Your task to perform on an android device: turn on bluetooth scan Image 0: 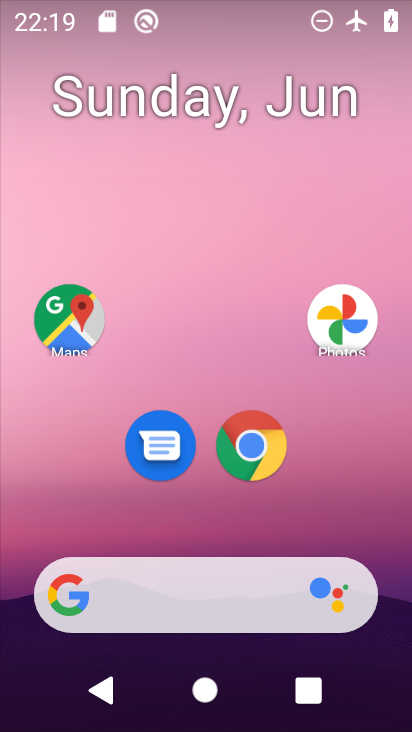
Step 0: press home button
Your task to perform on an android device: turn on bluetooth scan Image 1: 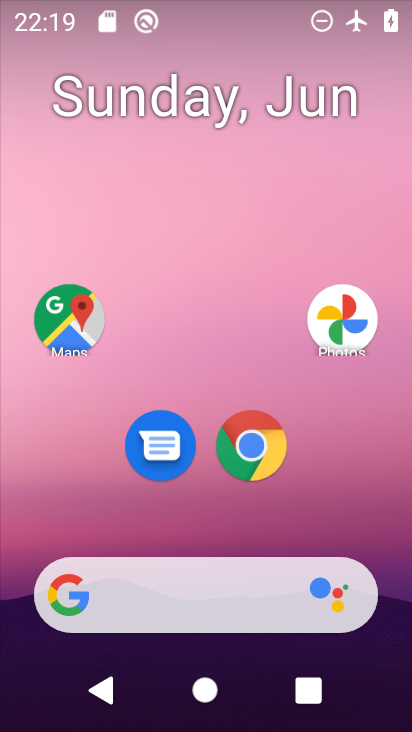
Step 1: drag from (217, 522) to (240, 13)
Your task to perform on an android device: turn on bluetooth scan Image 2: 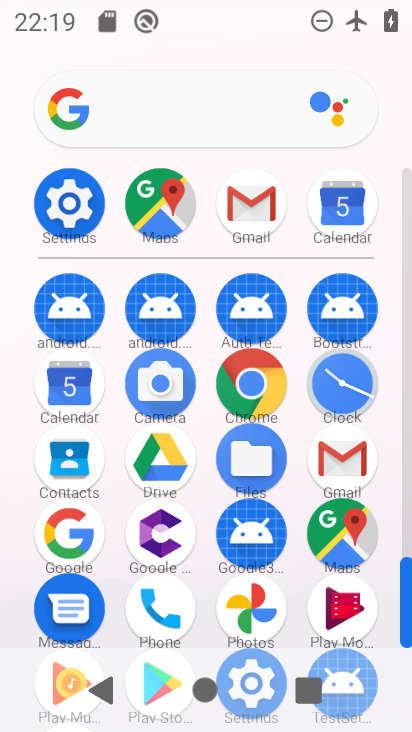
Step 2: click (85, 206)
Your task to perform on an android device: turn on bluetooth scan Image 3: 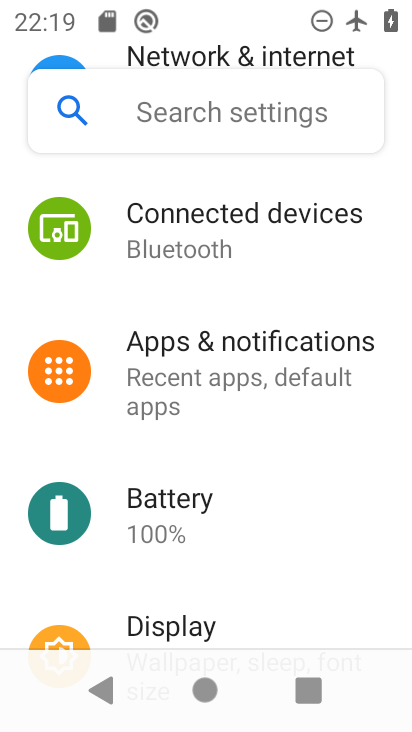
Step 3: drag from (337, 563) to (353, 172)
Your task to perform on an android device: turn on bluetooth scan Image 4: 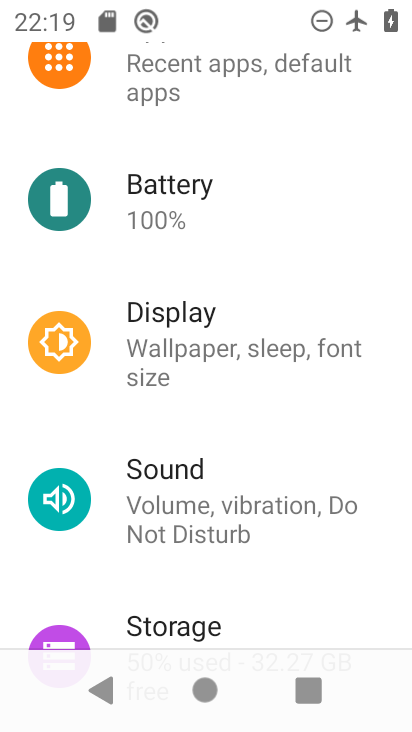
Step 4: drag from (338, 567) to (322, 144)
Your task to perform on an android device: turn on bluetooth scan Image 5: 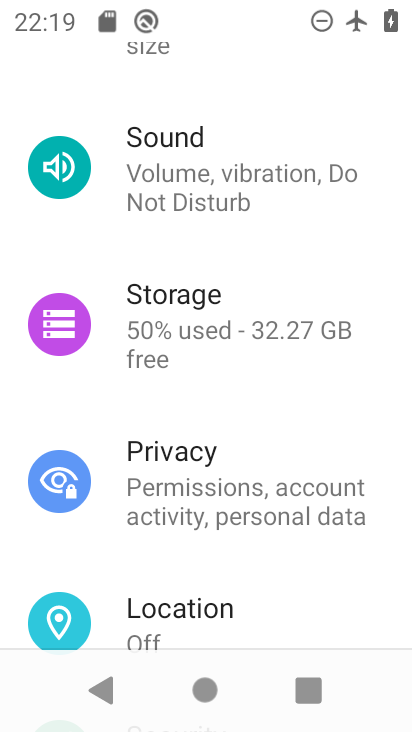
Step 5: click (193, 619)
Your task to perform on an android device: turn on bluetooth scan Image 6: 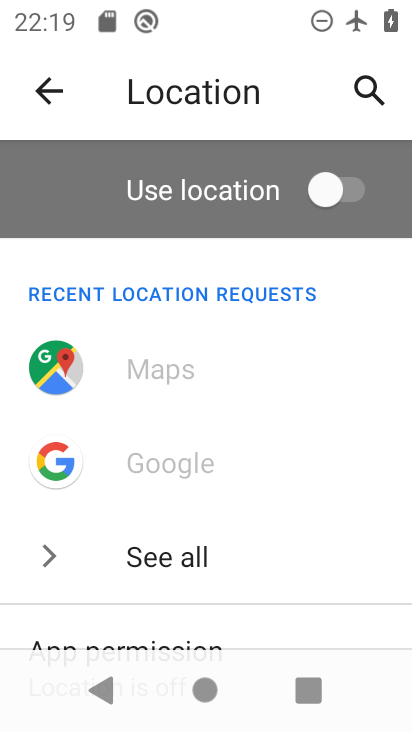
Step 6: drag from (300, 565) to (318, 112)
Your task to perform on an android device: turn on bluetooth scan Image 7: 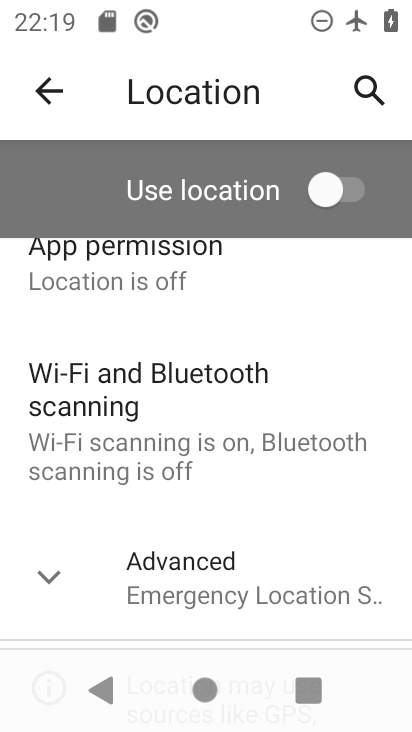
Step 7: click (101, 394)
Your task to perform on an android device: turn on bluetooth scan Image 8: 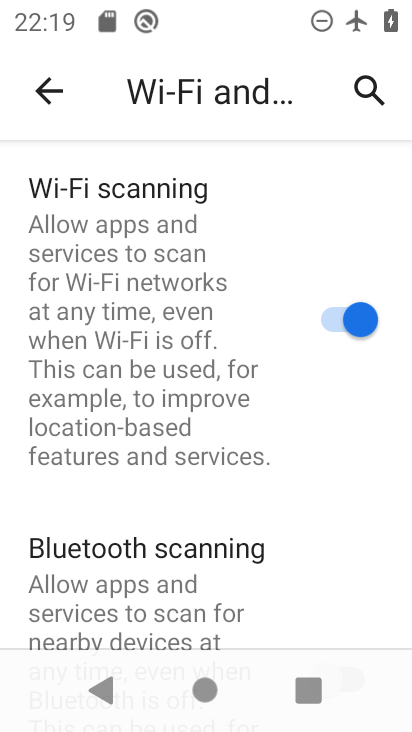
Step 8: drag from (319, 594) to (338, 186)
Your task to perform on an android device: turn on bluetooth scan Image 9: 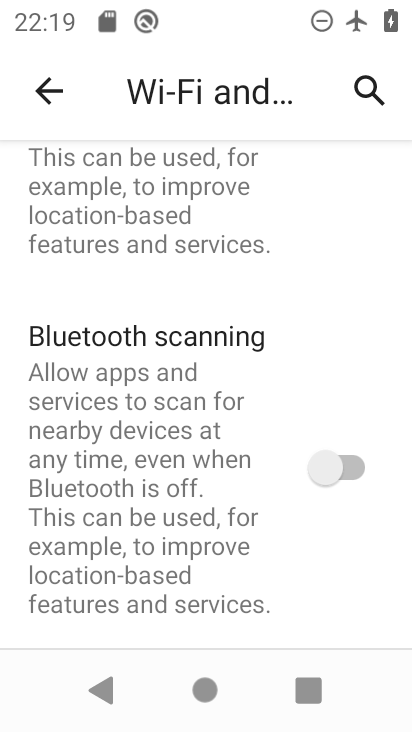
Step 9: click (330, 467)
Your task to perform on an android device: turn on bluetooth scan Image 10: 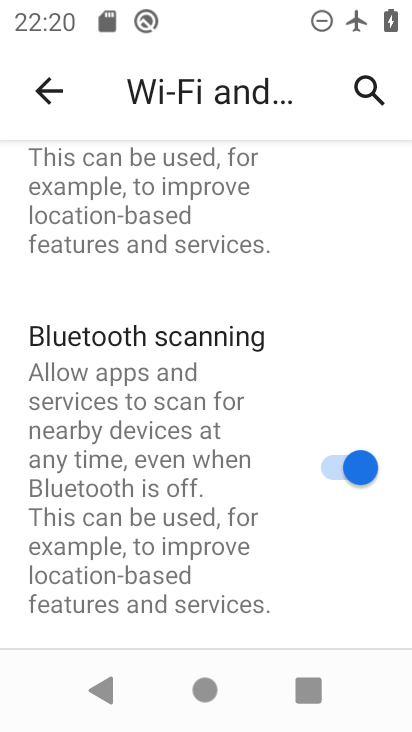
Step 10: task complete